Your task to perform on an android device: Search for vegetarian restaurants on Maps Image 0: 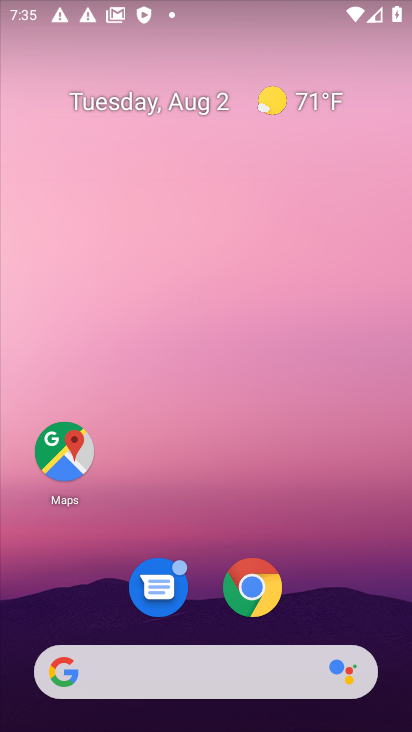
Step 0: click (64, 456)
Your task to perform on an android device: Search for vegetarian restaurants on Maps Image 1: 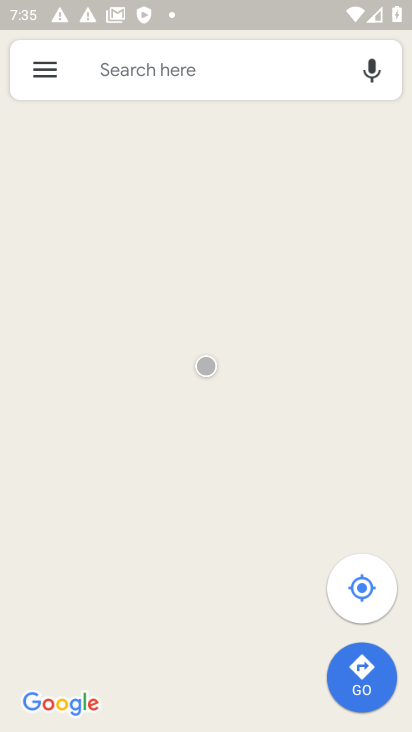
Step 1: click (150, 70)
Your task to perform on an android device: Search for vegetarian restaurants on Maps Image 2: 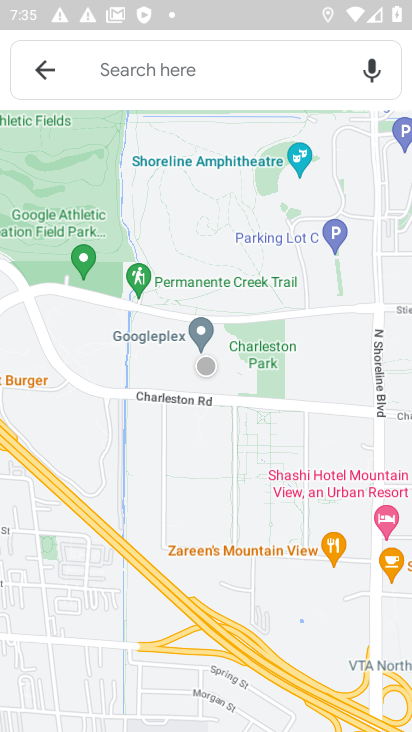
Step 2: click (120, 69)
Your task to perform on an android device: Search for vegetarian restaurants on Maps Image 3: 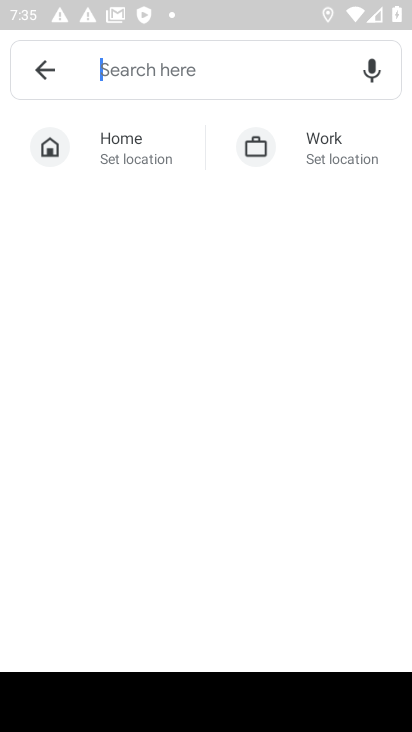
Step 3: click (129, 59)
Your task to perform on an android device: Search for vegetarian restaurants on Maps Image 4: 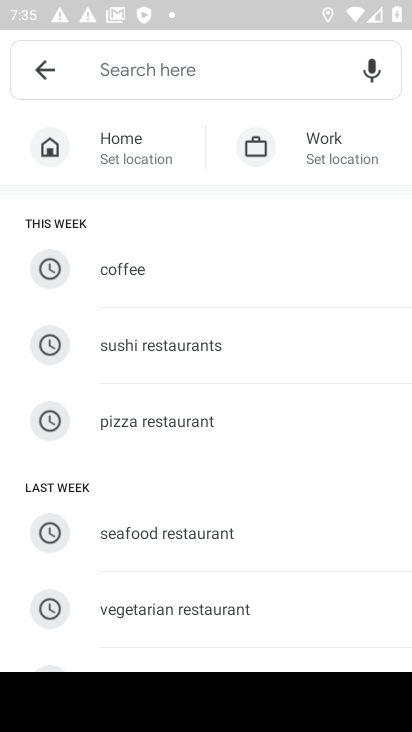
Step 4: click (174, 604)
Your task to perform on an android device: Search for vegetarian restaurants on Maps Image 5: 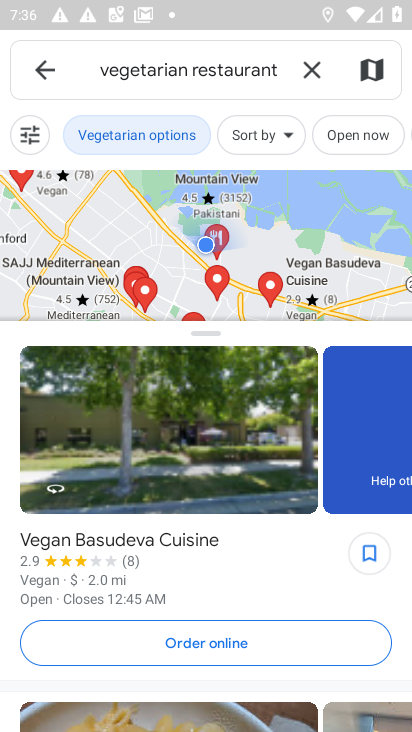
Step 5: task complete